Your task to perform on an android device: Open the map Image 0: 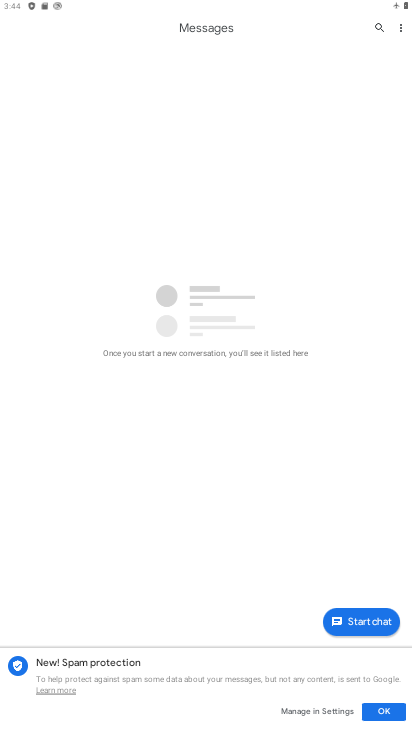
Step 0: press home button
Your task to perform on an android device: Open the map Image 1: 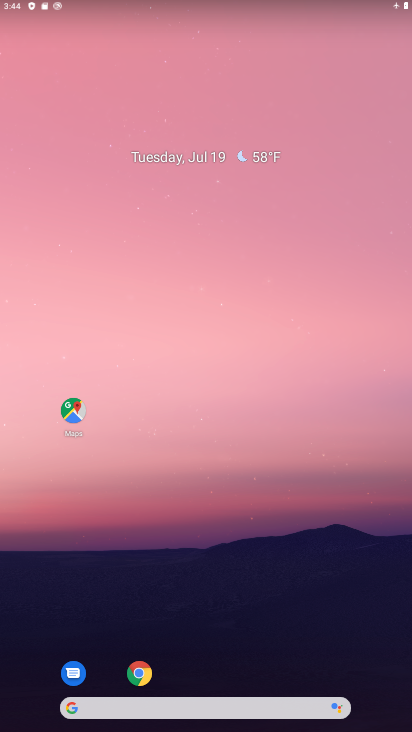
Step 1: click (68, 403)
Your task to perform on an android device: Open the map Image 2: 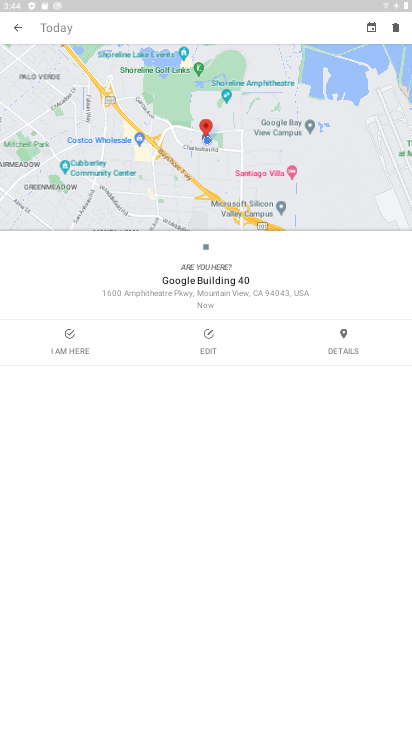
Step 2: task complete